Your task to perform on an android device: Go to Yahoo.com Image 0: 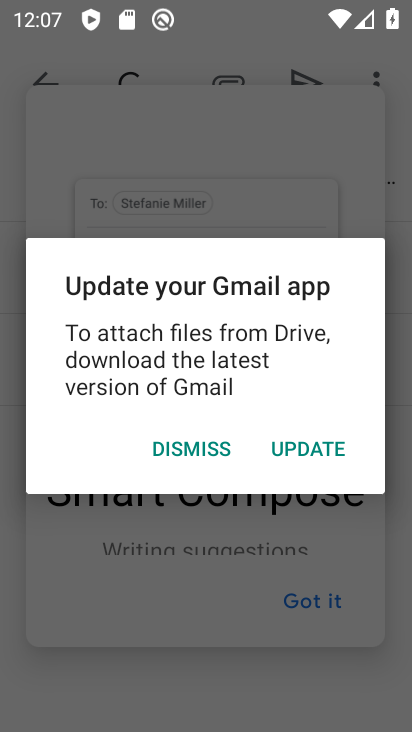
Step 0: press home button
Your task to perform on an android device: Go to Yahoo.com Image 1: 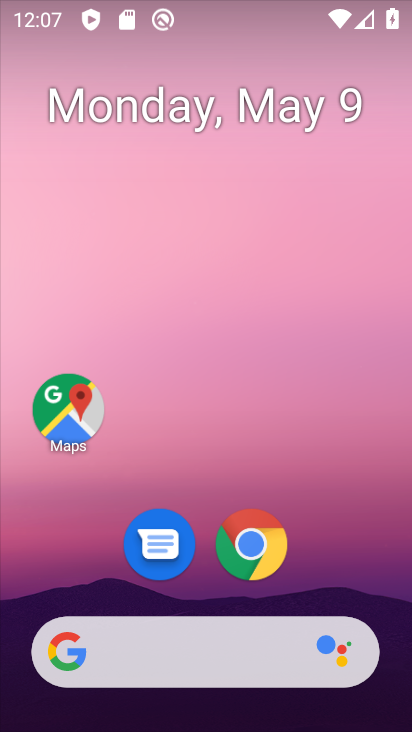
Step 1: drag from (351, 206) to (333, 52)
Your task to perform on an android device: Go to Yahoo.com Image 2: 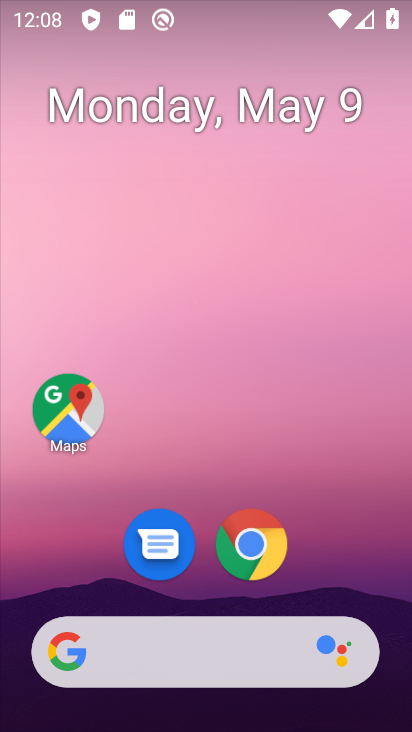
Step 2: click (238, 559)
Your task to perform on an android device: Go to Yahoo.com Image 3: 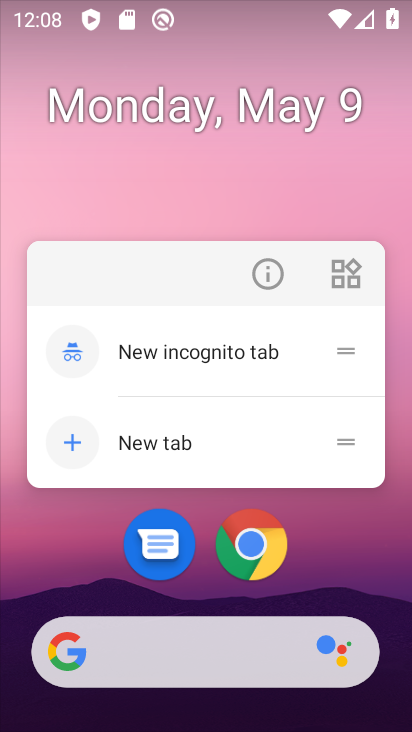
Step 3: click (240, 559)
Your task to perform on an android device: Go to Yahoo.com Image 4: 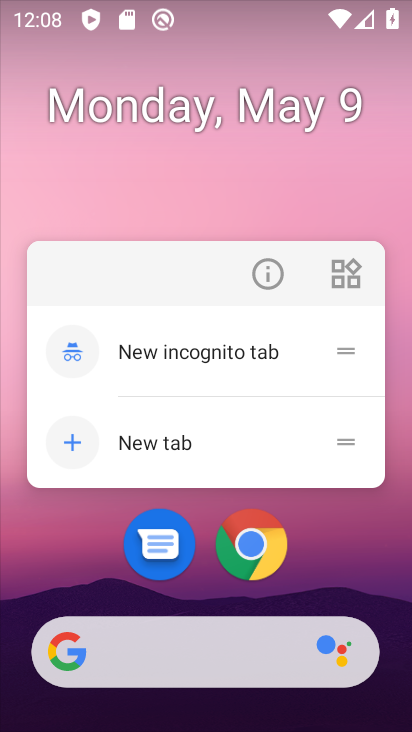
Step 4: drag from (347, 611) to (358, 26)
Your task to perform on an android device: Go to Yahoo.com Image 5: 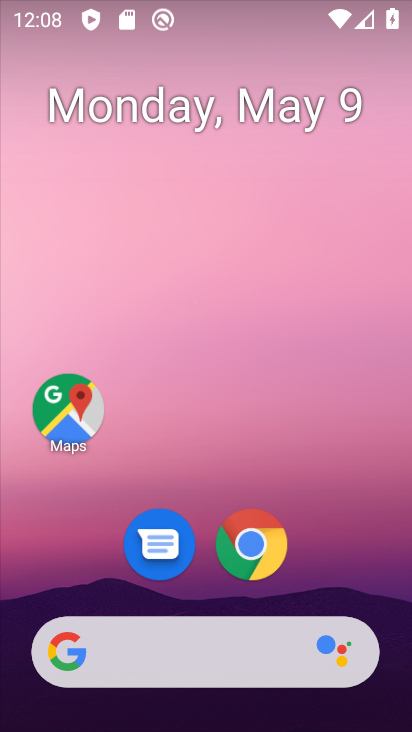
Step 5: drag from (330, 538) to (336, 49)
Your task to perform on an android device: Go to Yahoo.com Image 6: 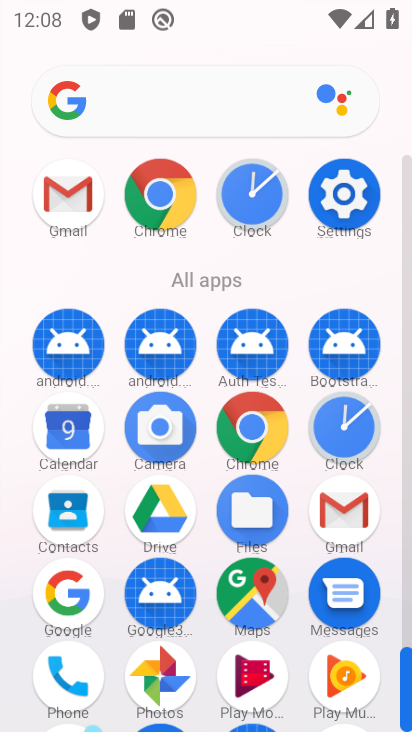
Step 6: click (165, 246)
Your task to perform on an android device: Go to Yahoo.com Image 7: 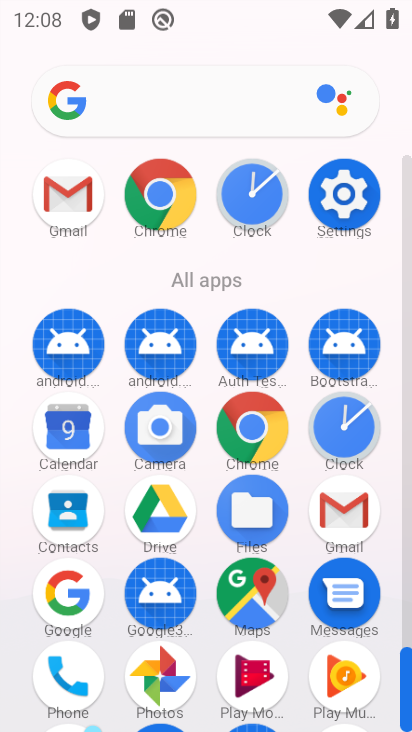
Step 7: click (170, 219)
Your task to perform on an android device: Go to Yahoo.com Image 8: 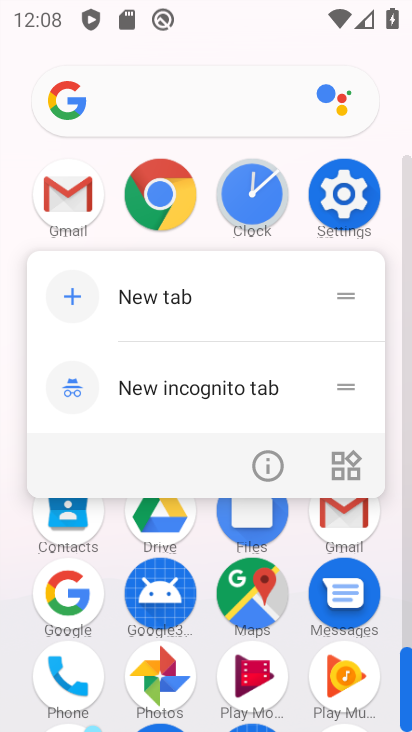
Step 8: click (170, 219)
Your task to perform on an android device: Go to Yahoo.com Image 9: 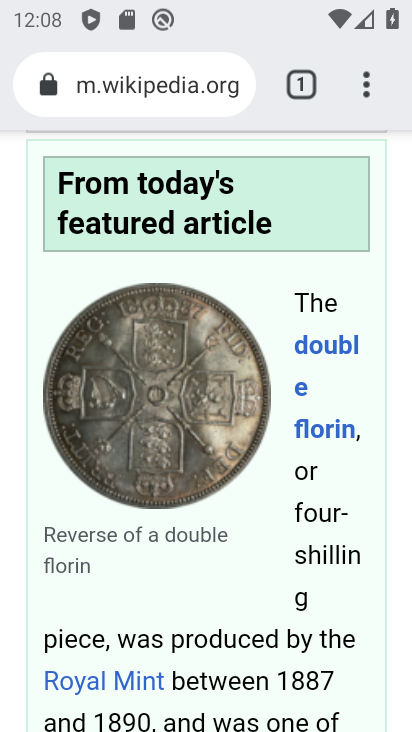
Step 9: click (183, 94)
Your task to perform on an android device: Go to Yahoo.com Image 10: 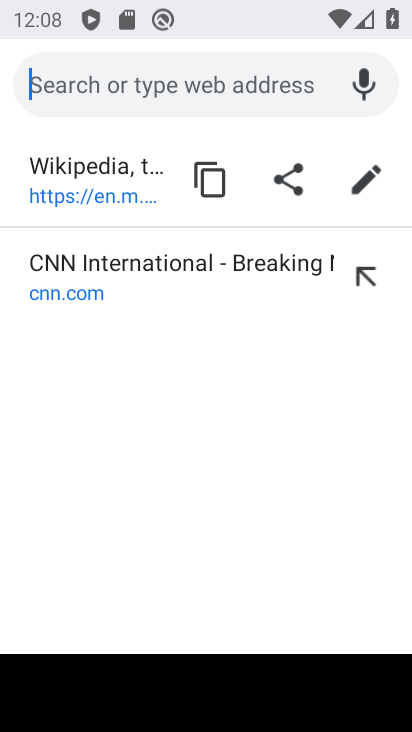
Step 10: type "yahoo.com"
Your task to perform on an android device: Go to Yahoo.com Image 11: 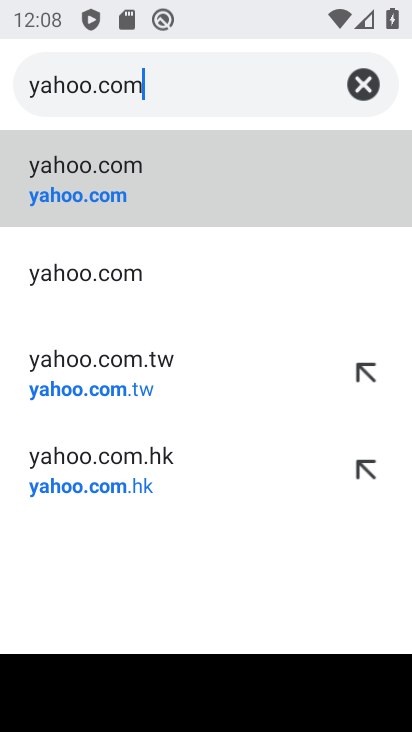
Step 11: click (68, 196)
Your task to perform on an android device: Go to Yahoo.com Image 12: 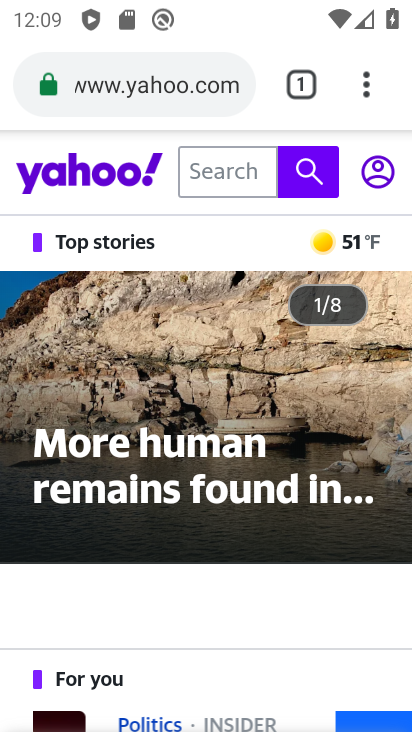
Step 12: task complete